Your task to perform on an android device: Clear the shopping cart on bestbuy.com. Add macbook pro to the cart on bestbuy.com, then select checkout. Image 0: 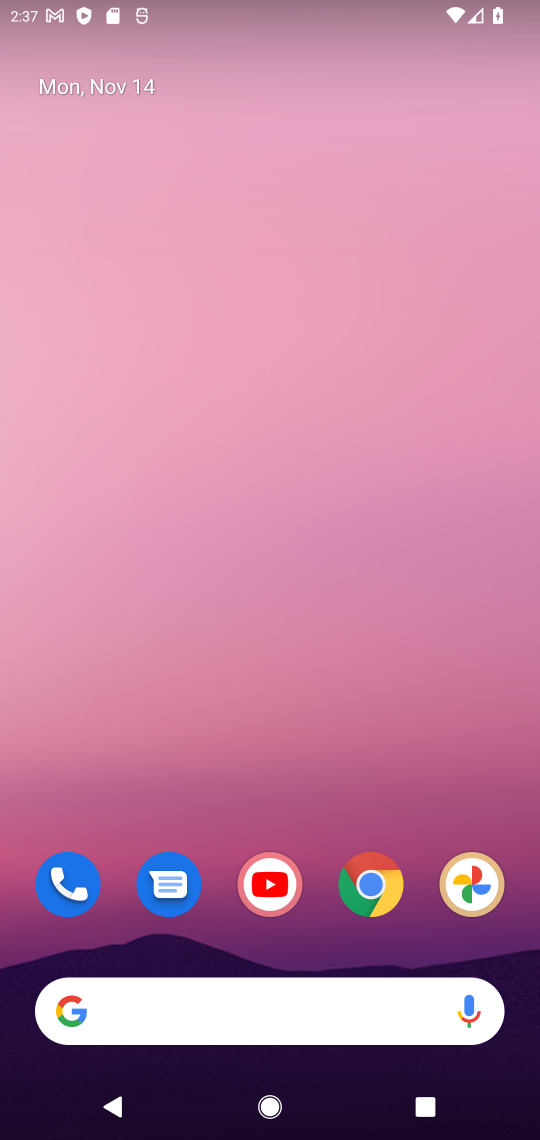
Step 0: click (353, 862)
Your task to perform on an android device: Clear the shopping cart on bestbuy.com. Add macbook pro to the cart on bestbuy.com, then select checkout. Image 1: 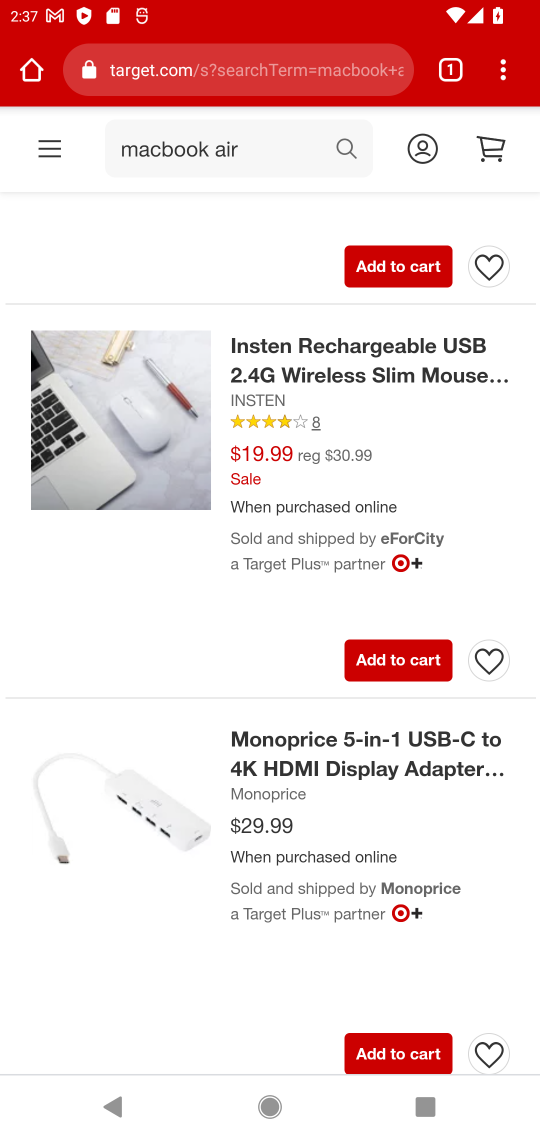
Step 1: click (265, 60)
Your task to perform on an android device: Clear the shopping cart on bestbuy.com. Add macbook pro to the cart on bestbuy.com, then select checkout. Image 2: 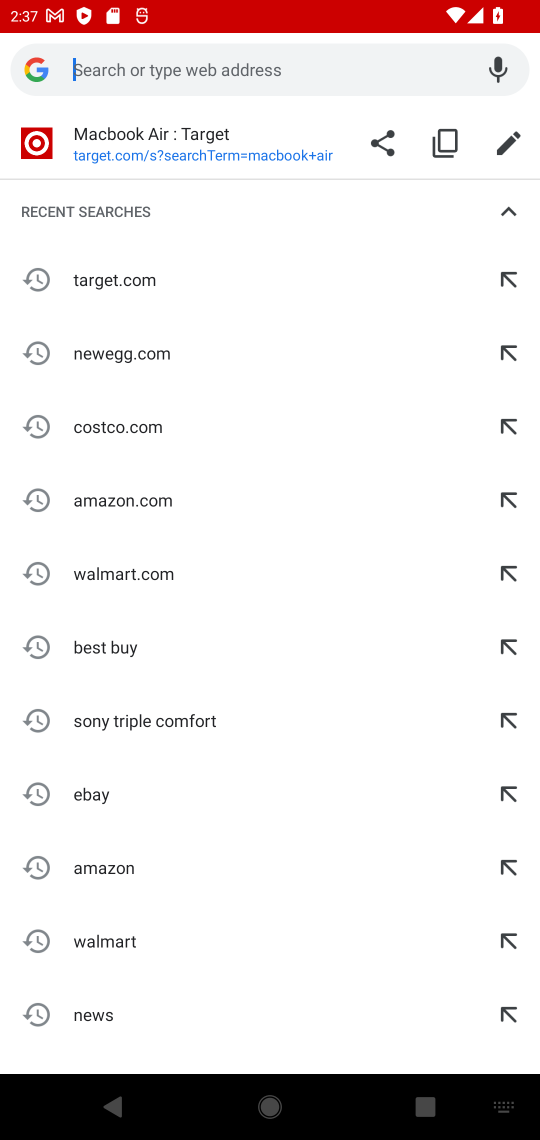
Step 2: type "bestbuy.com"
Your task to perform on an android device: Clear the shopping cart on bestbuy.com. Add macbook pro to the cart on bestbuy.com, then select checkout. Image 3: 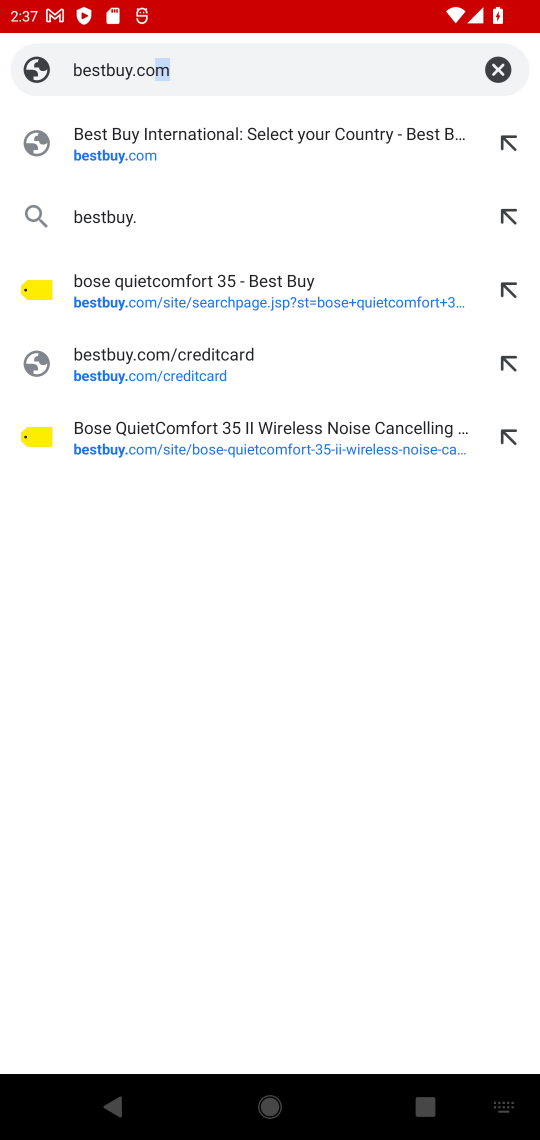
Step 3: press enter
Your task to perform on an android device: Clear the shopping cart on bestbuy.com. Add macbook pro to the cart on bestbuy.com, then select checkout. Image 4: 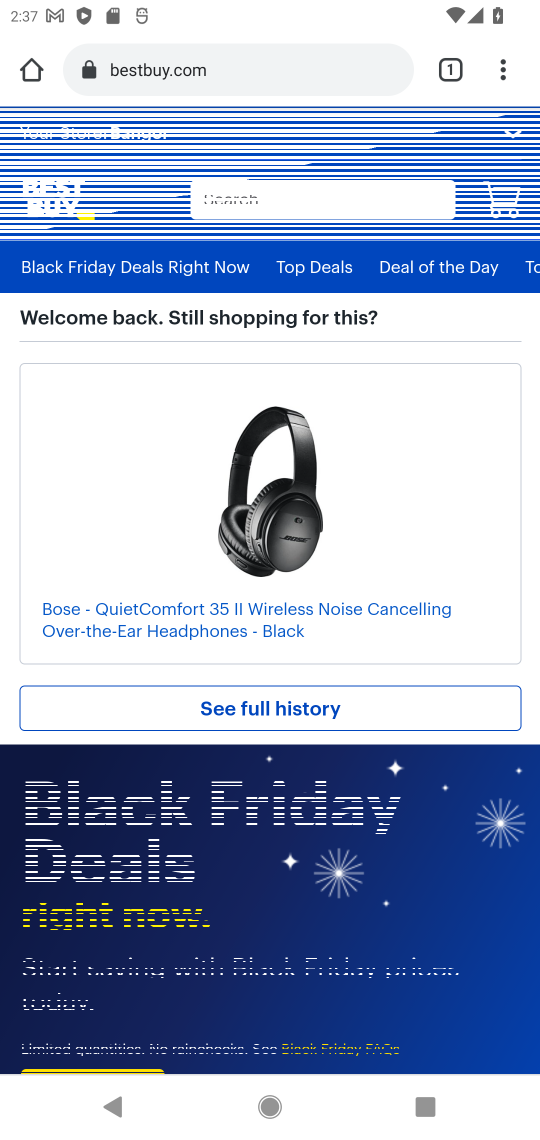
Step 4: click (307, 202)
Your task to perform on an android device: Clear the shopping cart on bestbuy.com. Add macbook pro to the cart on bestbuy.com, then select checkout. Image 5: 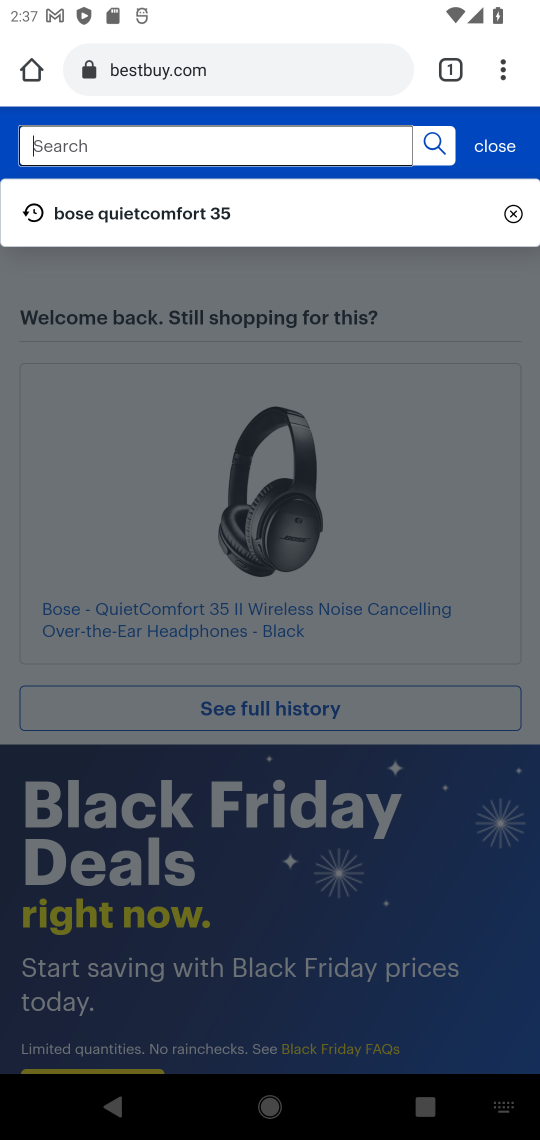
Step 5: click (128, 142)
Your task to perform on an android device: Clear the shopping cart on bestbuy.com. Add macbook pro to the cart on bestbuy.com, then select checkout. Image 6: 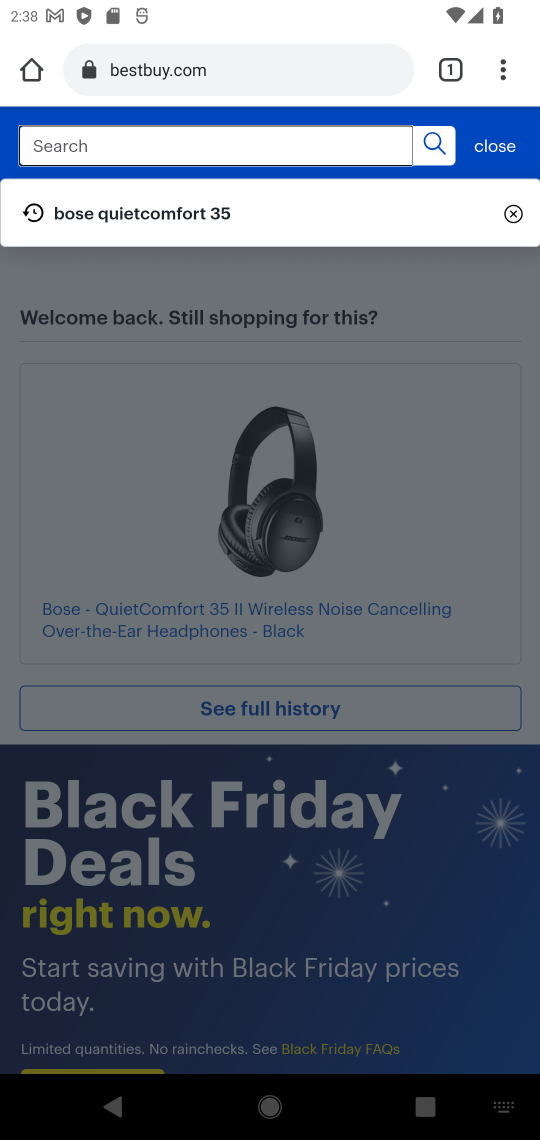
Step 6: type "macbook pro"
Your task to perform on an android device: Clear the shopping cart on bestbuy.com. Add macbook pro to the cart on bestbuy.com, then select checkout. Image 7: 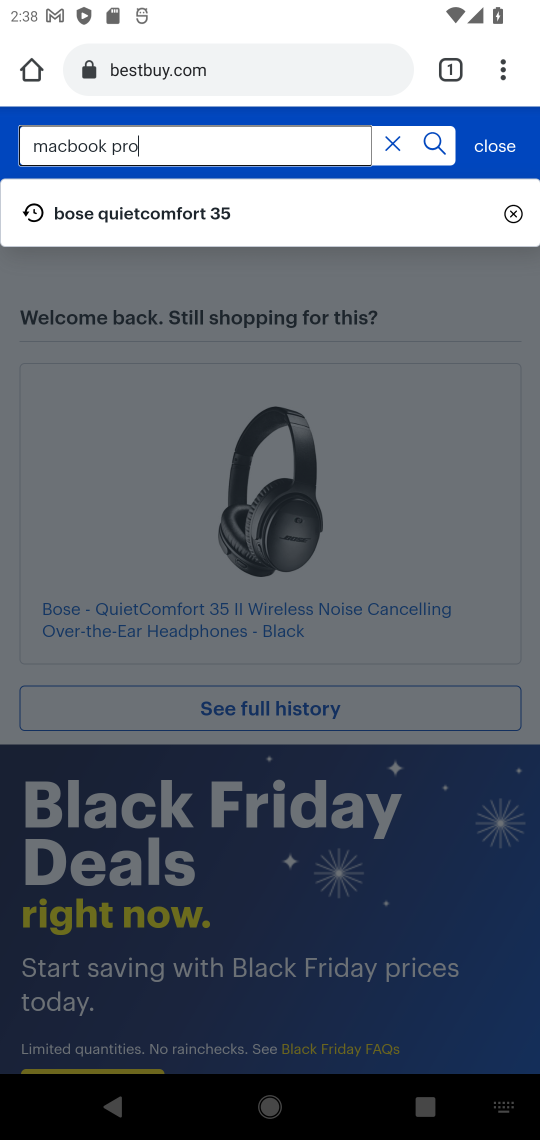
Step 7: press enter
Your task to perform on an android device: Clear the shopping cart on bestbuy.com. Add macbook pro to the cart on bestbuy.com, then select checkout. Image 8: 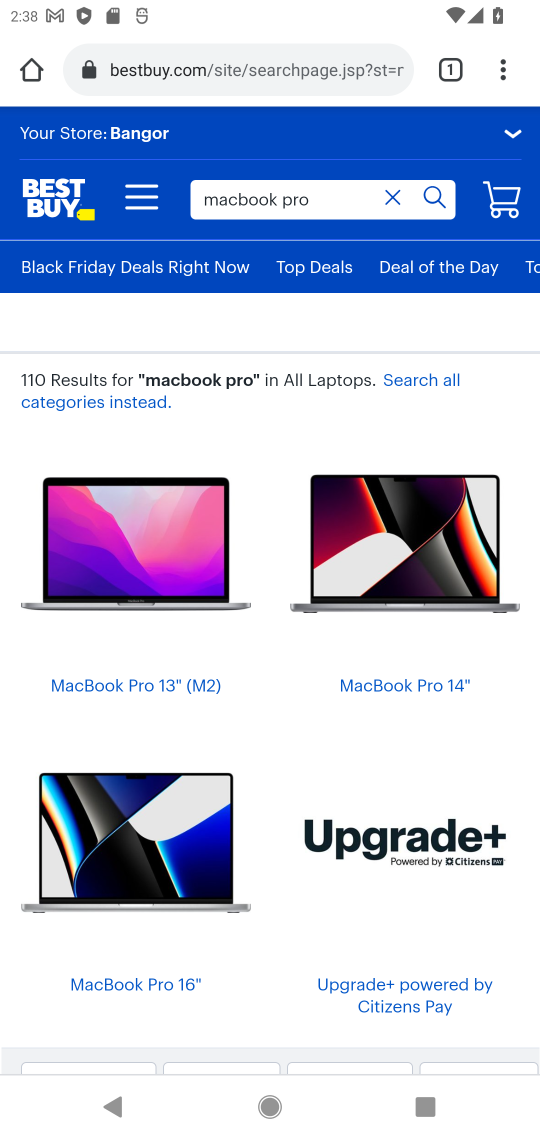
Step 8: click (158, 536)
Your task to perform on an android device: Clear the shopping cart on bestbuy.com. Add macbook pro to the cart on bestbuy.com, then select checkout. Image 9: 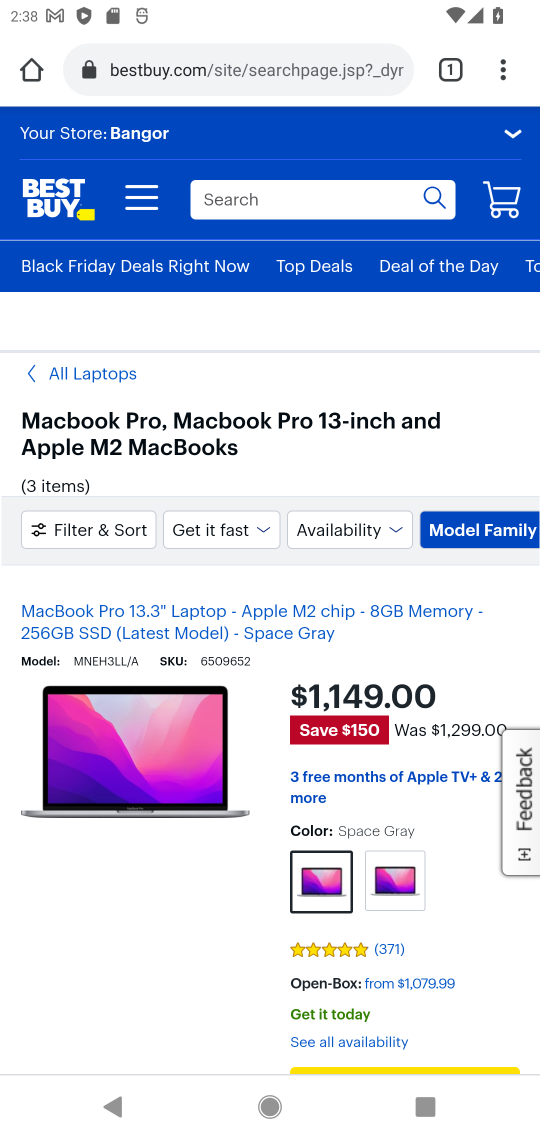
Step 9: drag from (179, 790) to (398, 286)
Your task to perform on an android device: Clear the shopping cart on bestbuy.com. Add macbook pro to the cart on bestbuy.com, then select checkout. Image 10: 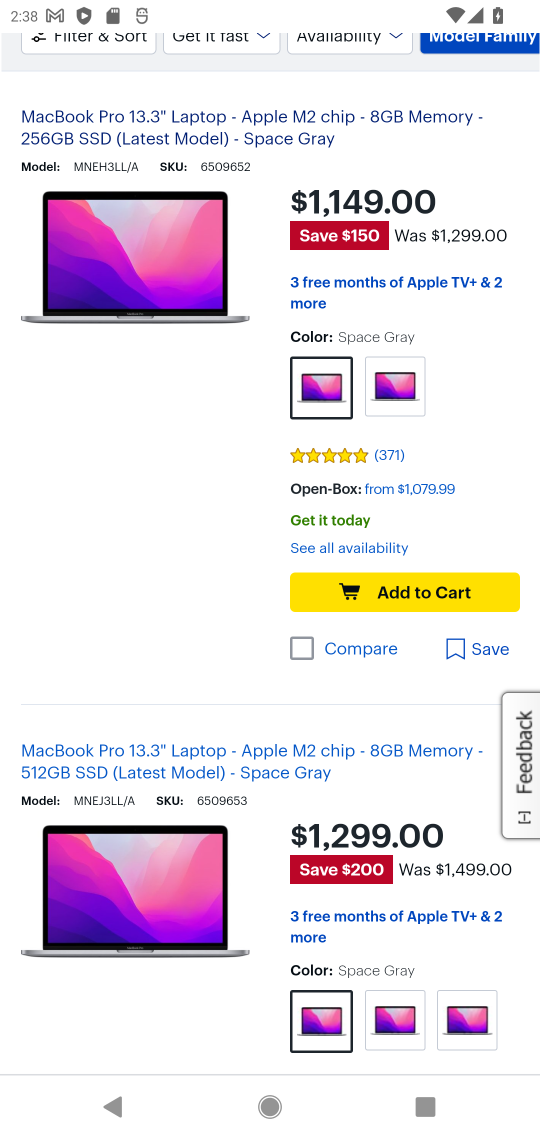
Step 10: click (435, 588)
Your task to perform on an android device: Clear the shopping cart on bestbuy.com. Add macbook pro to the cart on bestbuy.com, then select checkout. Image 11: 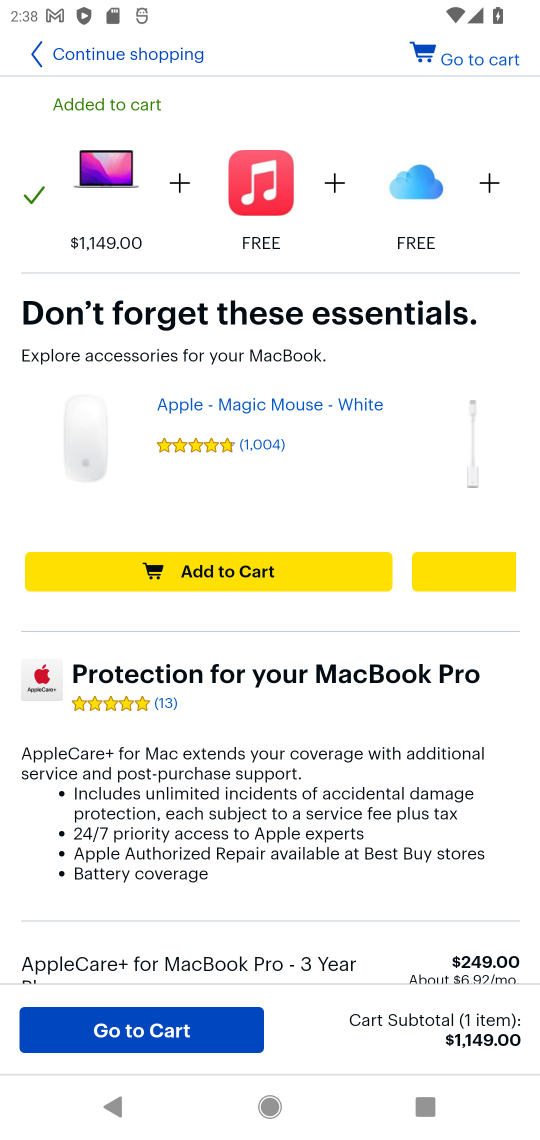
Step 11: click (187, 1025)
Your task to perform on an android device: Clear the shopping cart on bestbuy.com. Add macbook pro to the cart on bestbuy.com, then select checkout. Image 12: 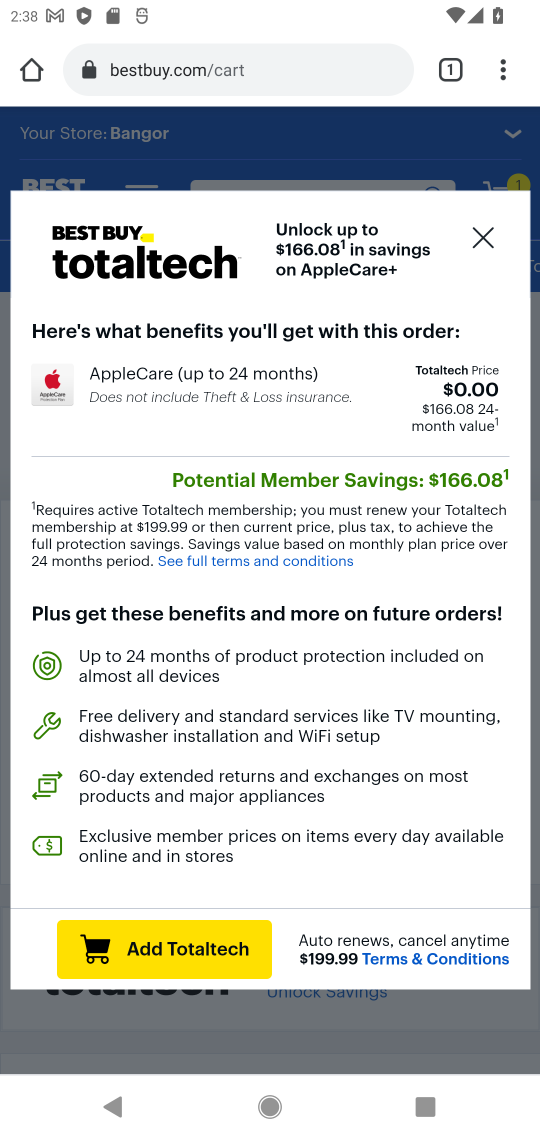
Step 12: click (317, 821)
Your task to perform on an android device: Clear the shopping cart on bestbuy.com. Add macbook pro to the cart on bestbuy.com, then select checkout. Image 13: 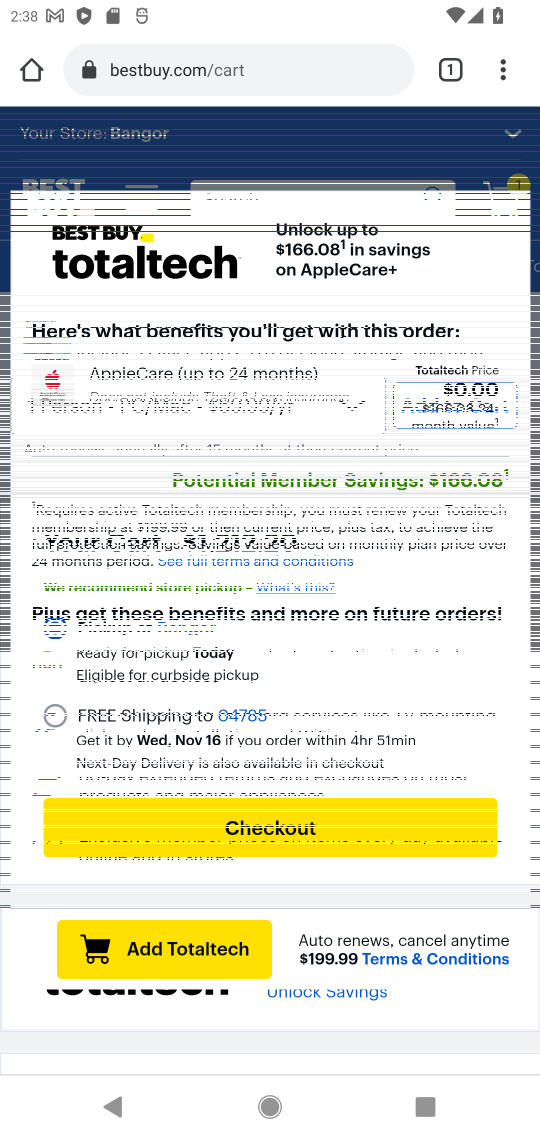
Step 13: click (495, 226)
Your task to perform on an android device: Clear the shopping cart on bestbuy.com. Add macbook pro to the cart on bestbuy.com, then select checkout. Image 14: 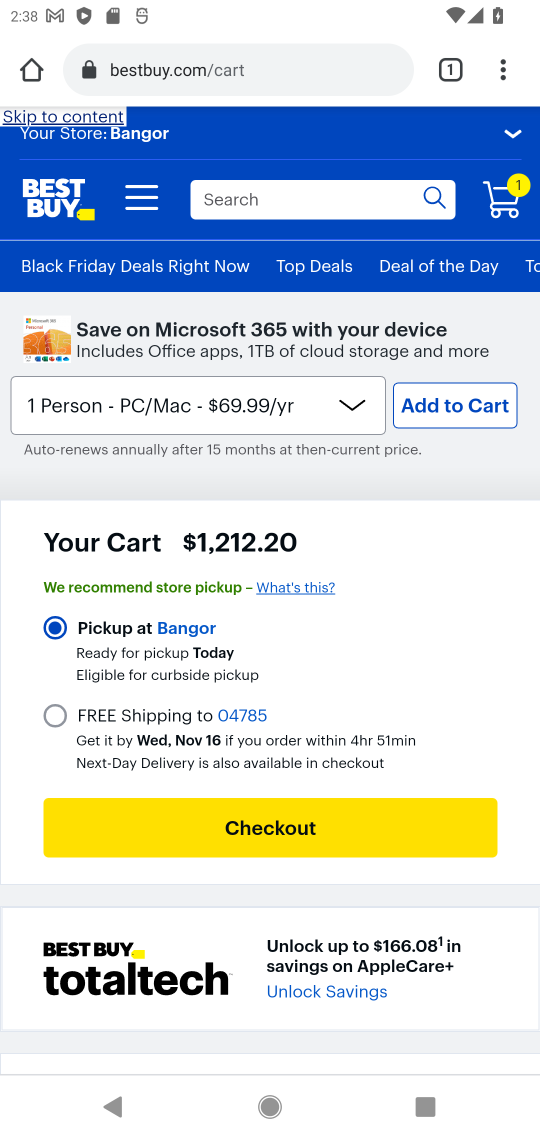
Step 14: click (274, 825)
Your task to perform on an android device: Clear the shopping cart on bestbuy.com. Add macbook pro to the cart on bestbuy.com, then select checkout. Image 15: 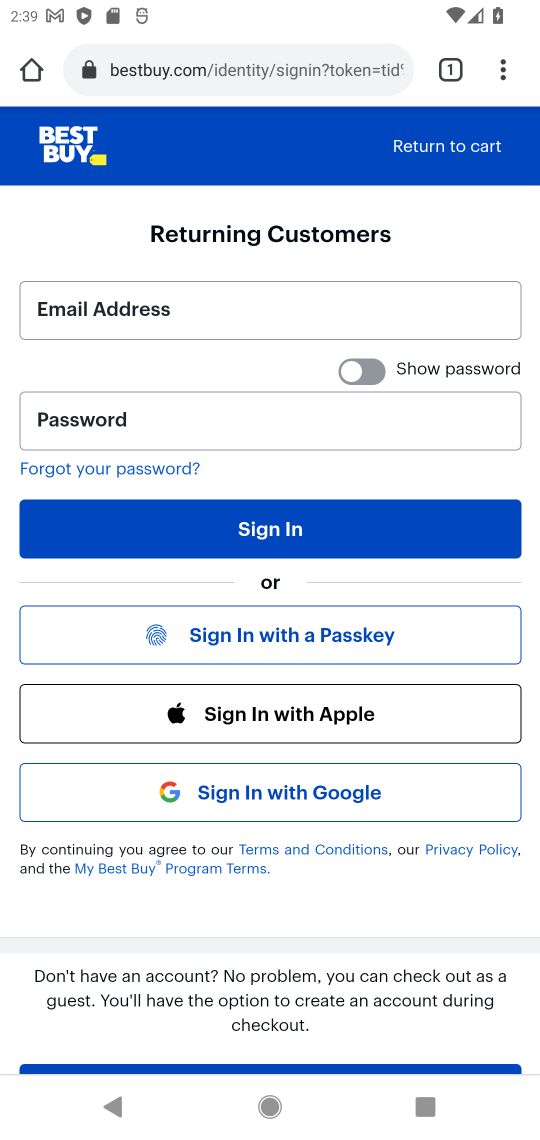
Step 15: task complete